Your task to perform on an android device: open app "Instagram" Image 0: 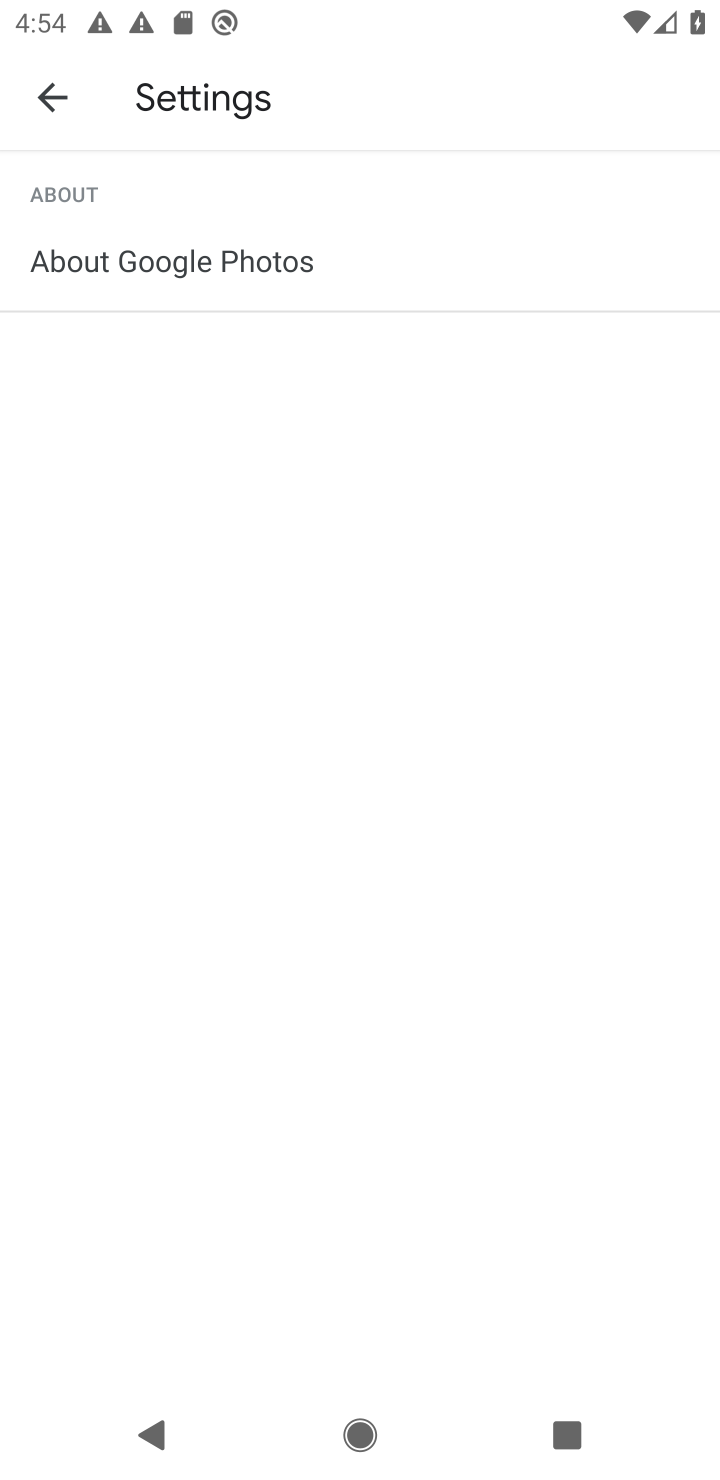
Step 0: press home button
Your task to perform on an android device: open app "Instagram" Image 1: 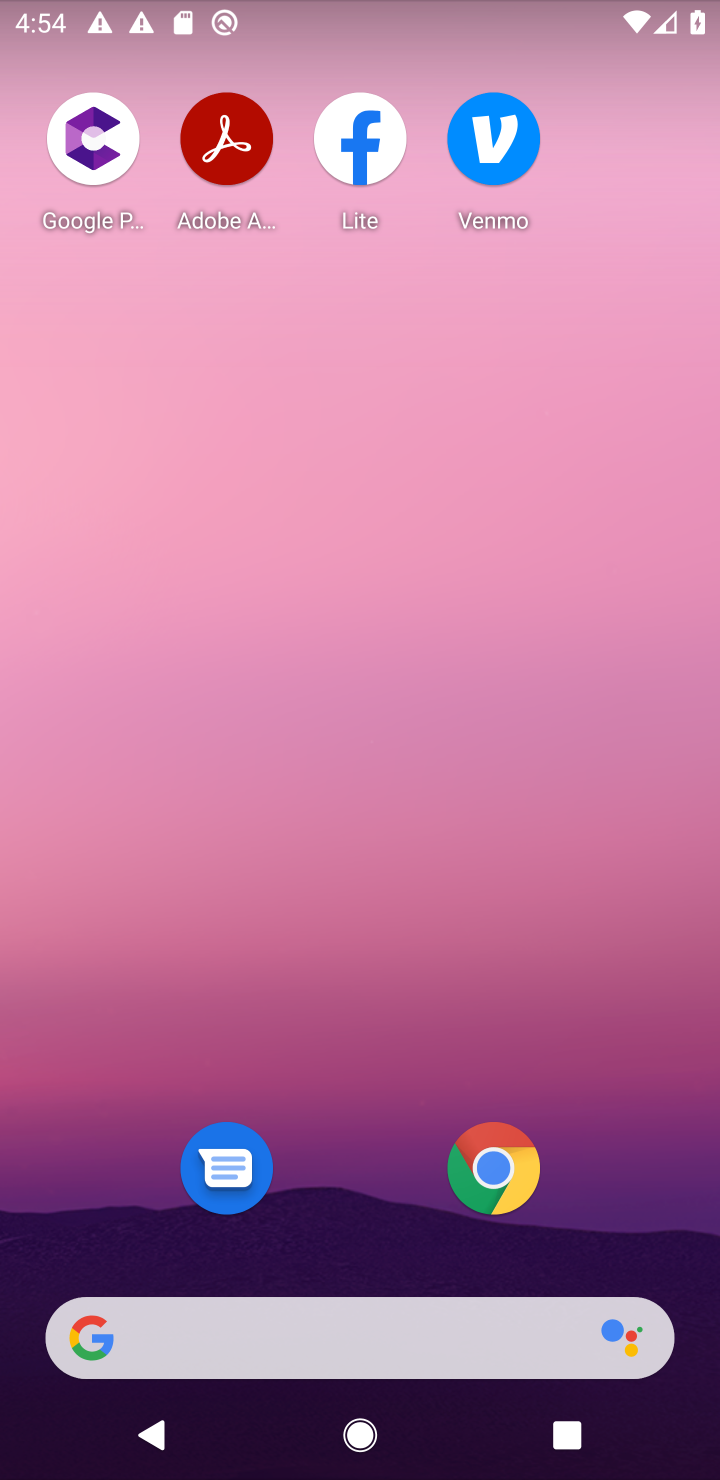
Step 1: drag from (367, 1255) to (410, 563)
Your task to perform on an android device: open app "Instagram" Image 2: 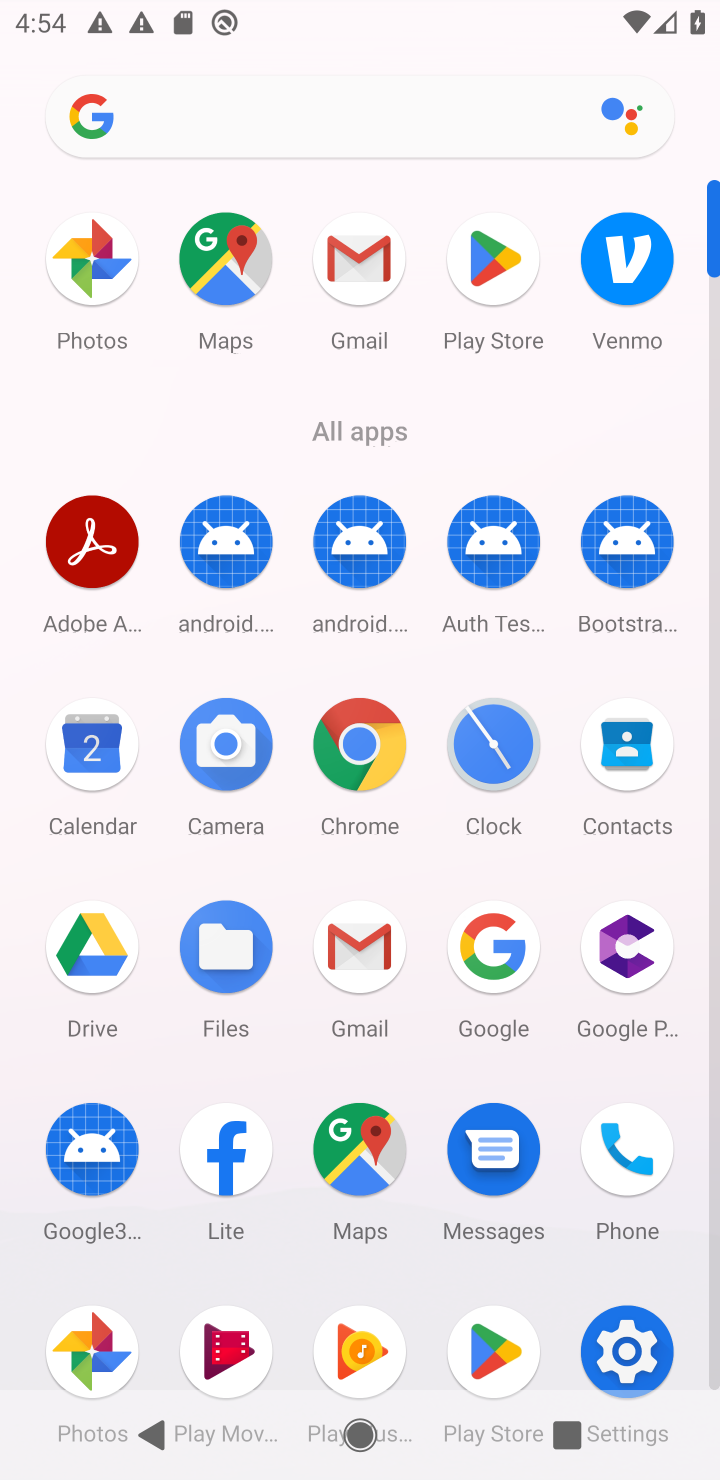
Step 2: click (516, 286)
Your task to perform on an android device: open app "Instagram" Image 3: 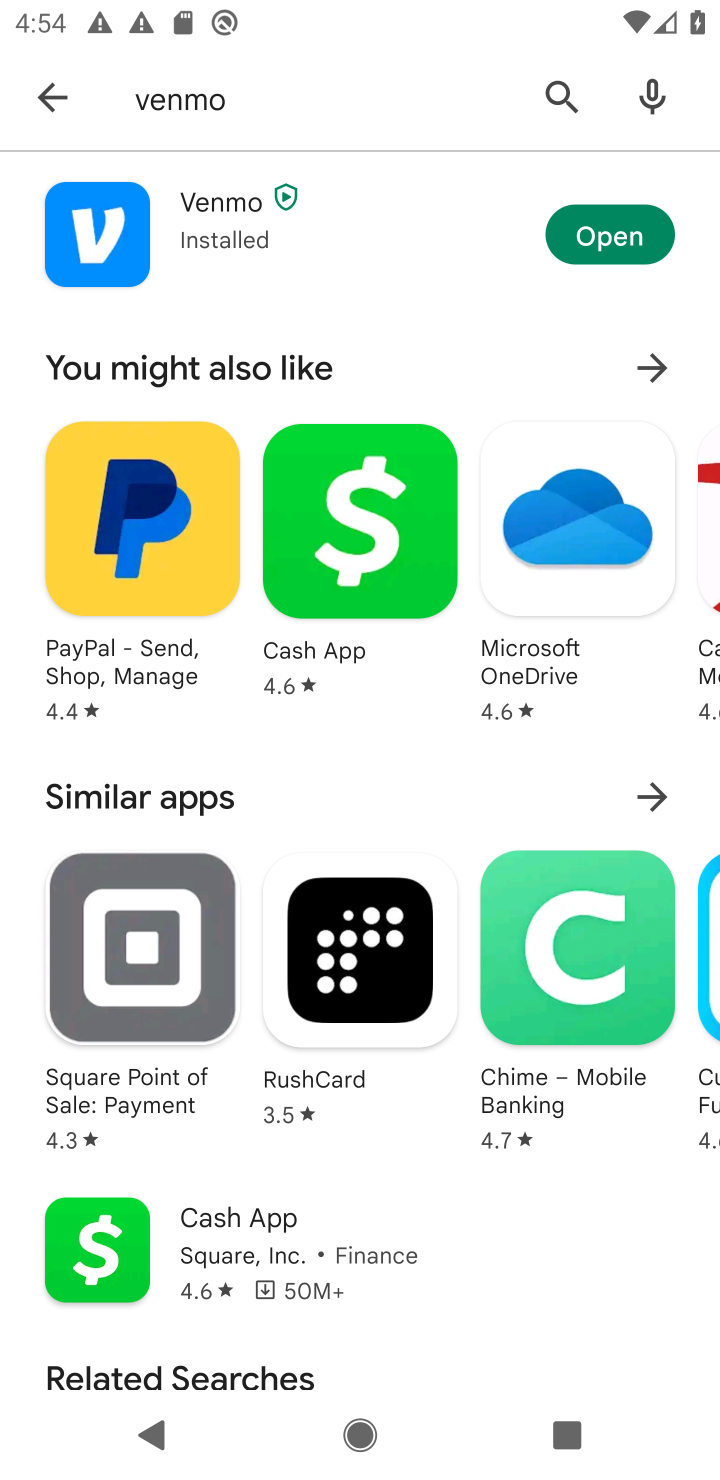
Step 3: click (300, 105)
Your task to perform on an android device: open app "Instagram" Image 4: 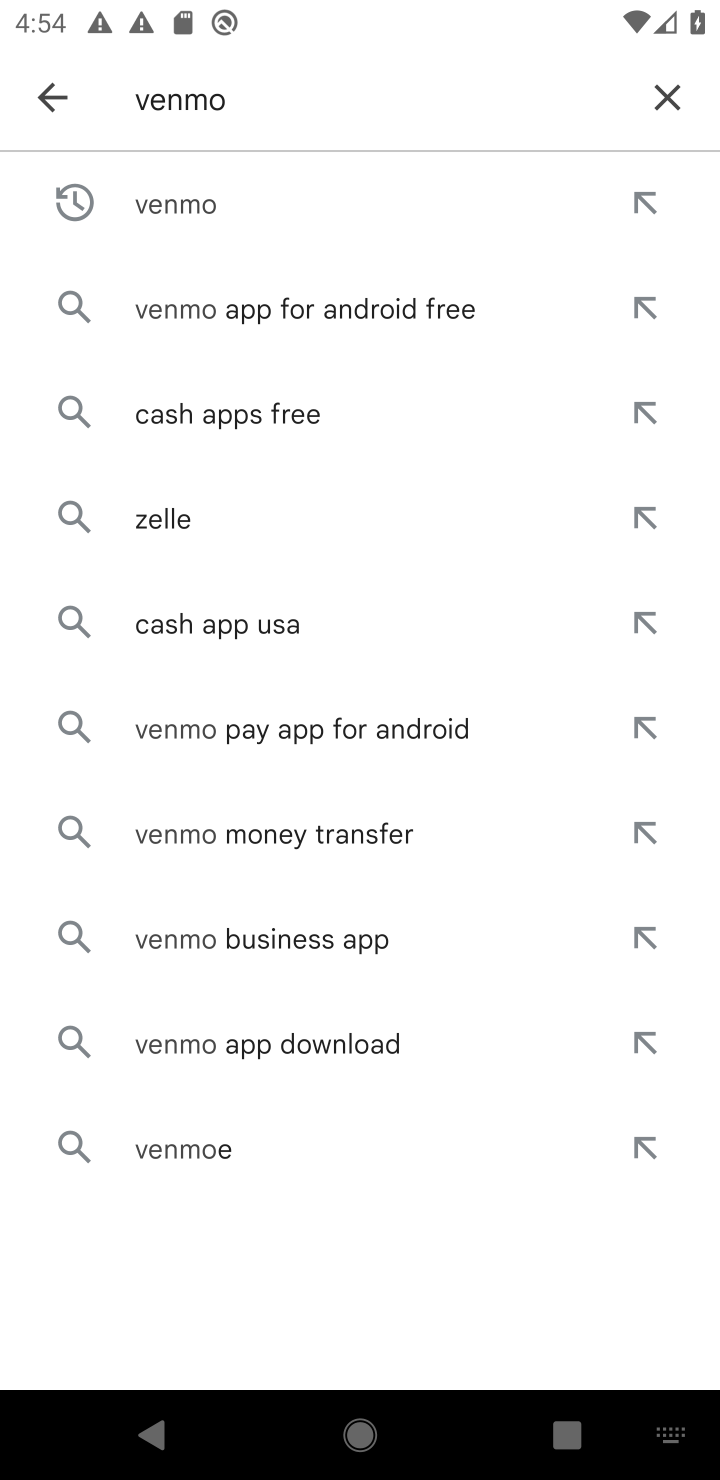
Step 4: click (663, 88)
Your task to perform on an android device: open app "Instagram" Image 5: 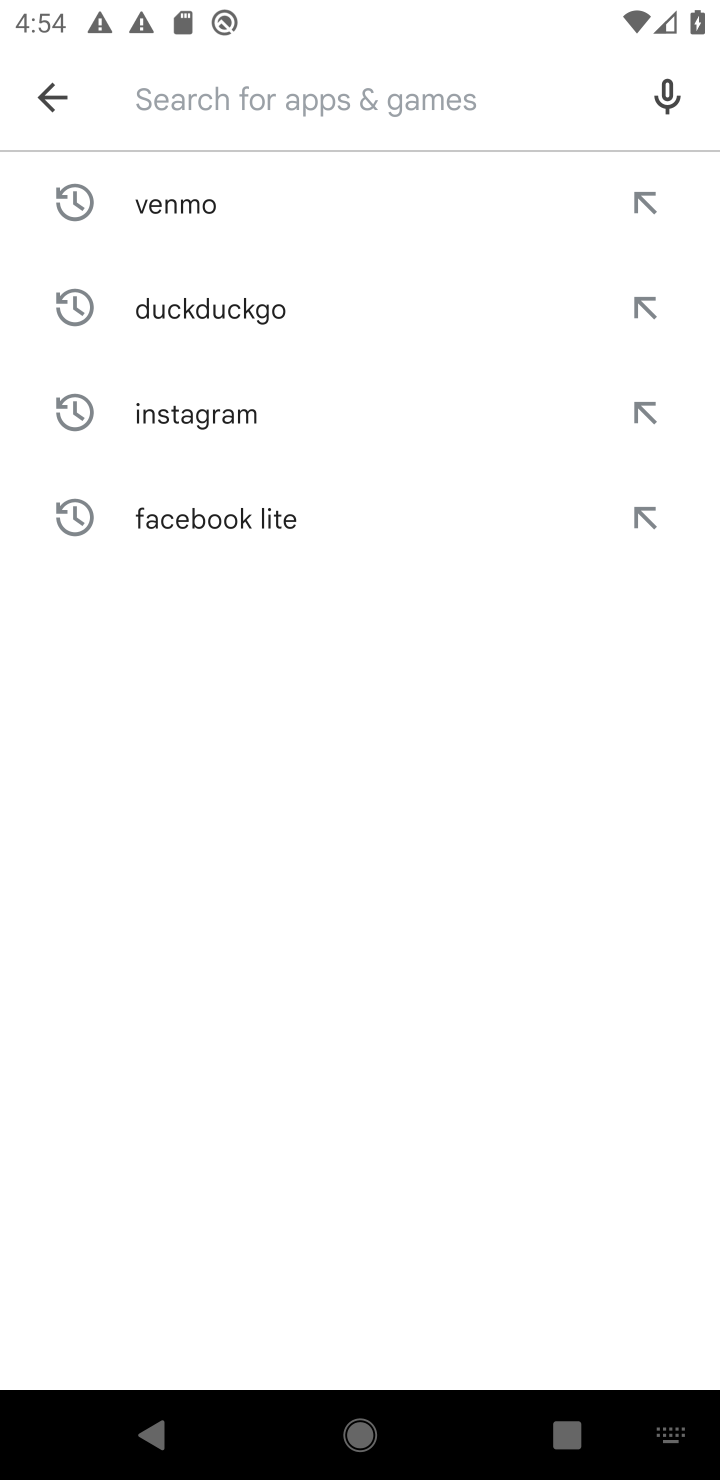
Step 5: type "instagram"
Your task to perform on an android device: open app "Instagram" Image 6: 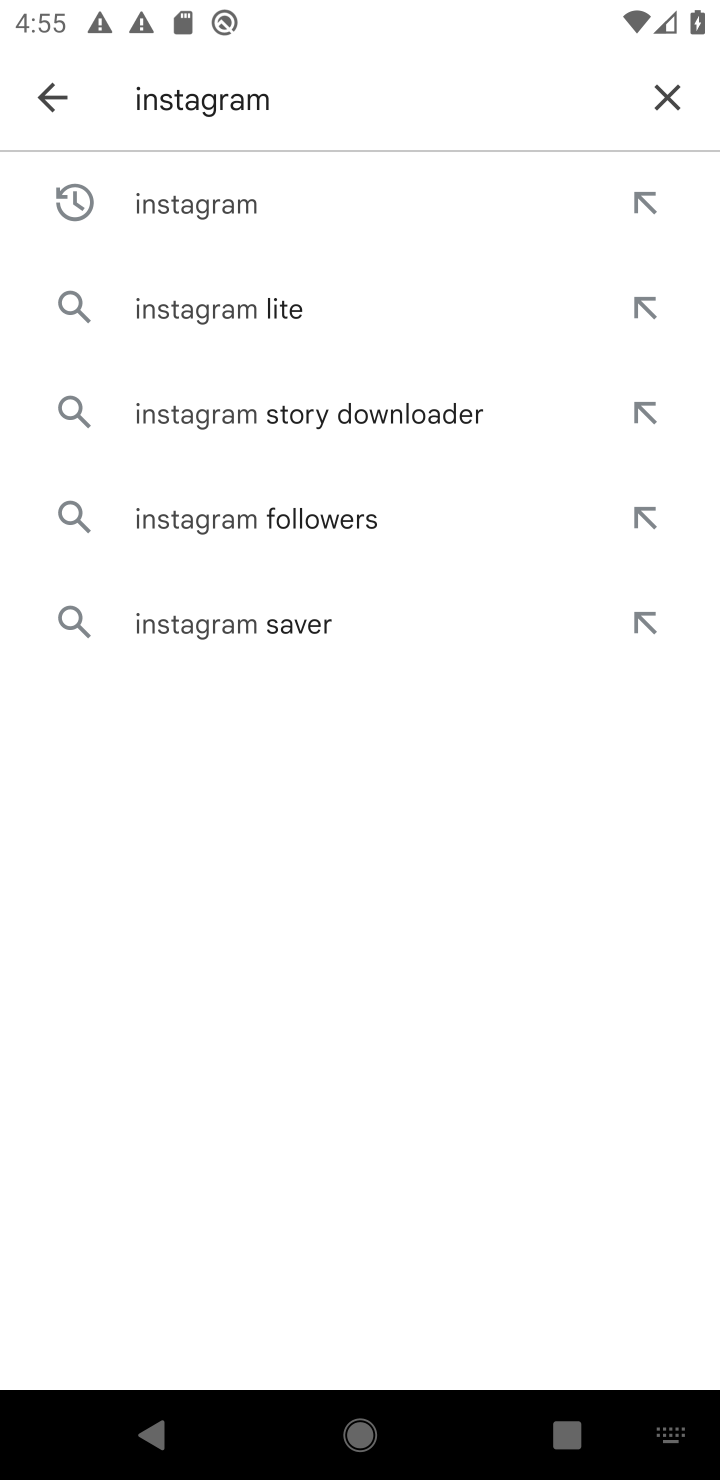
Step 6: click (228, 219)
Your task to perform on an android device: open app "Instagram" Image 7: 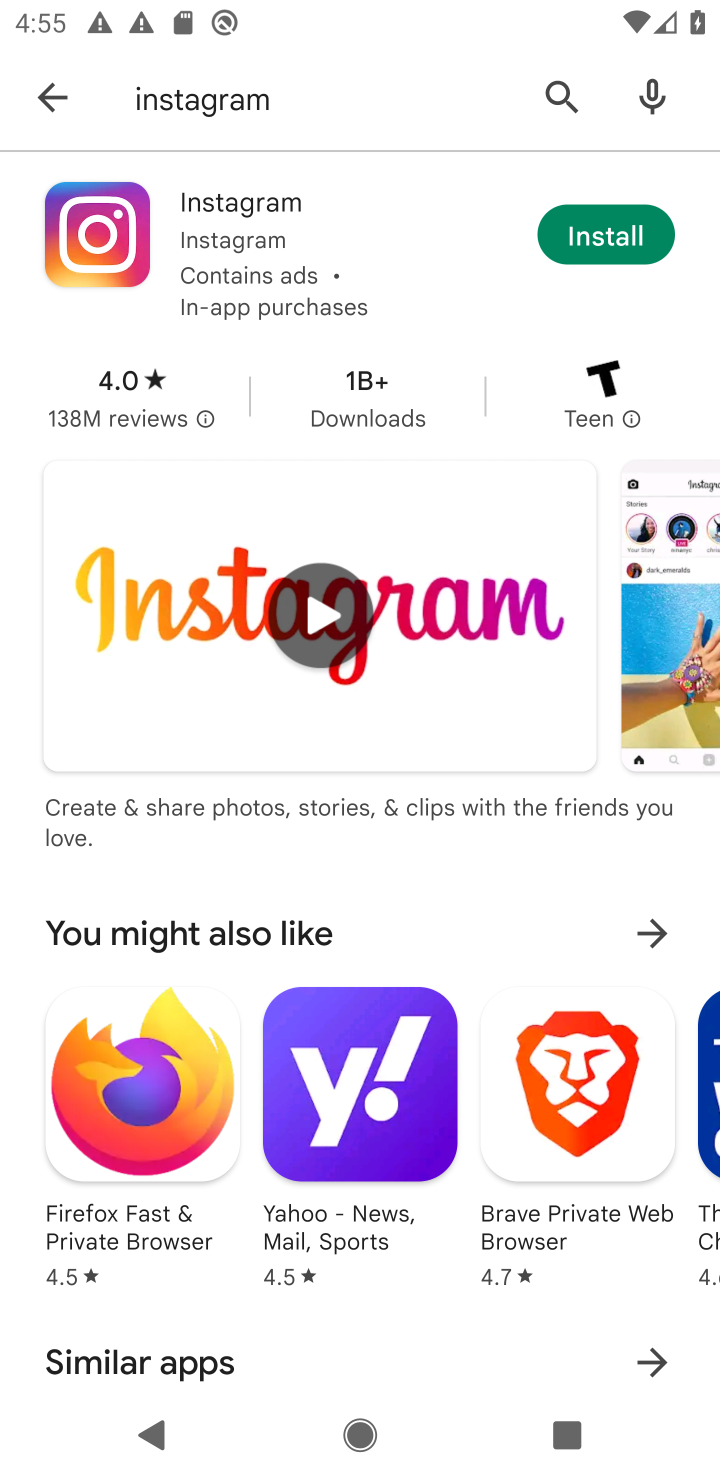
Step 7: task complete